Your task to perform on an android device: turn off location history Image 0: 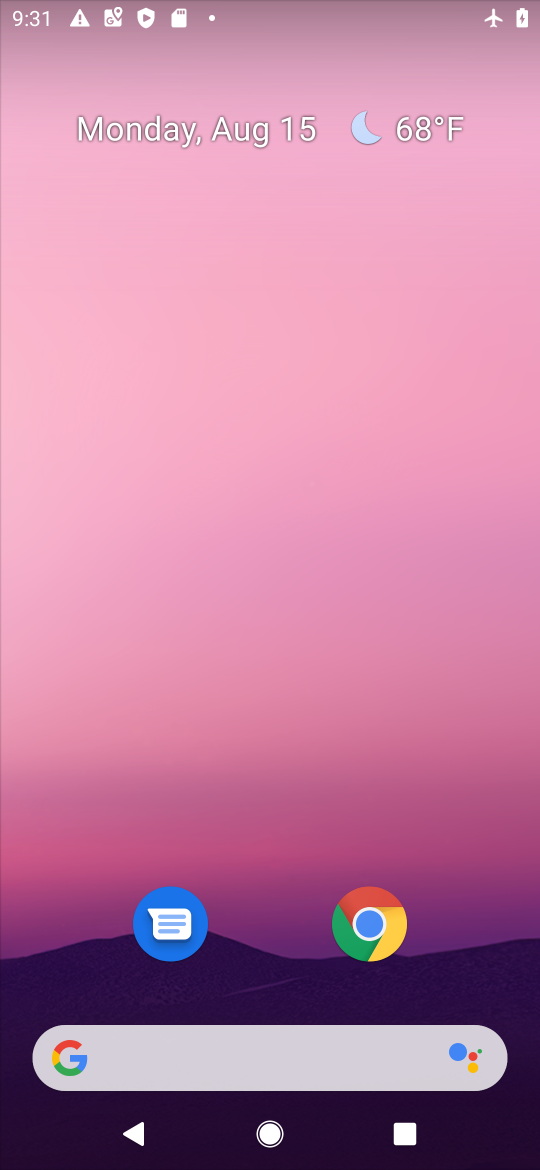
Step 0: drag from (482, 980) to (460, 245)
Your task to perform on an android device: turn off location history Image 1: 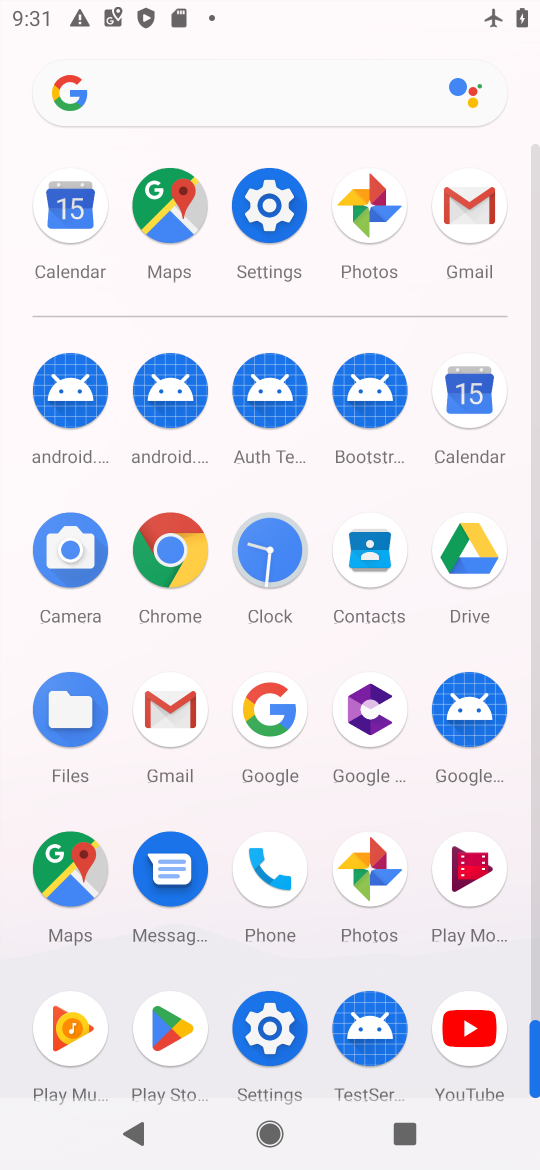
Step 1: click (72, 875)
Your task to perform on an android device: turn off location history Image 2: 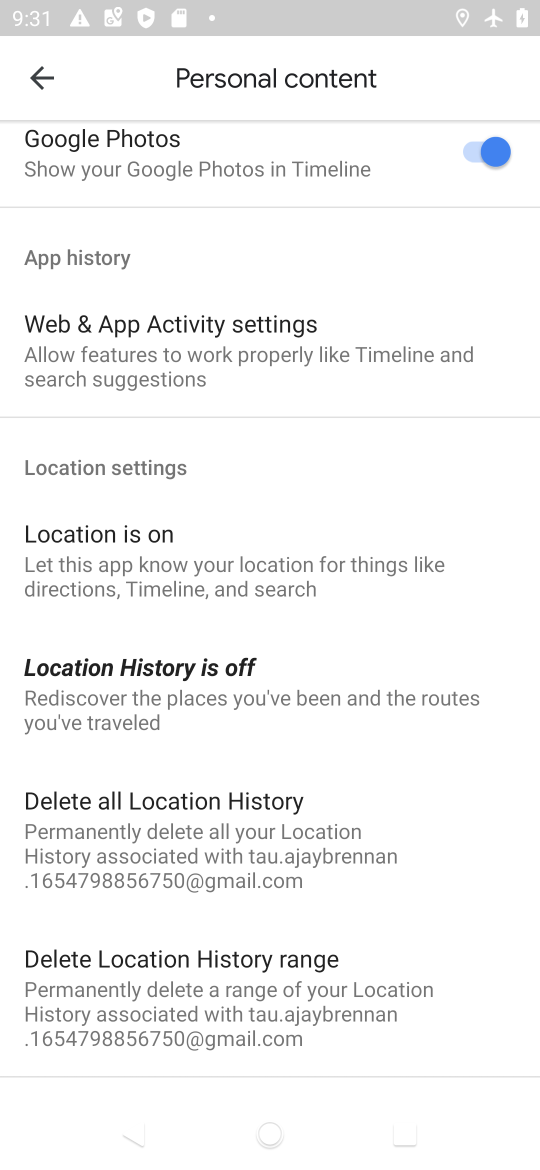
Step 2: task complete